Your task to perform on an android device: toggle priority inbox in the gmail app Image 0: 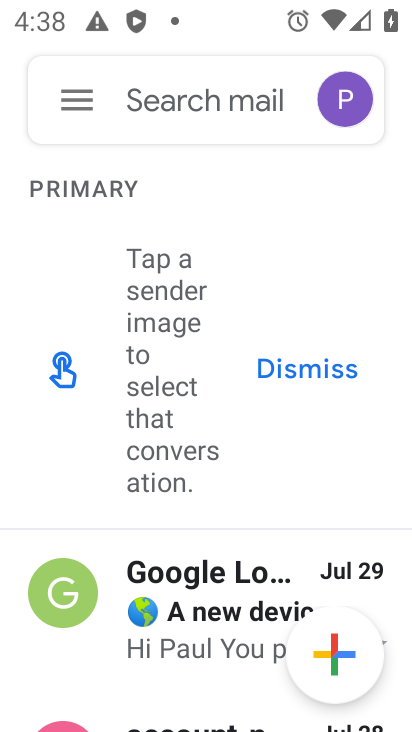
Step 0: press home button
Your task to perform on an android device: toggle priority inbox in the gmail app Image 1: 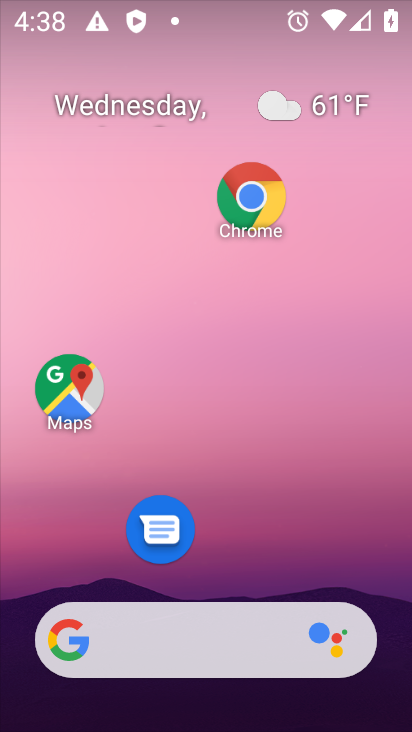
Step 1: click (252, 201)
Your task to perform on an android device: toggle priority inbox in the gmail app Image 2: 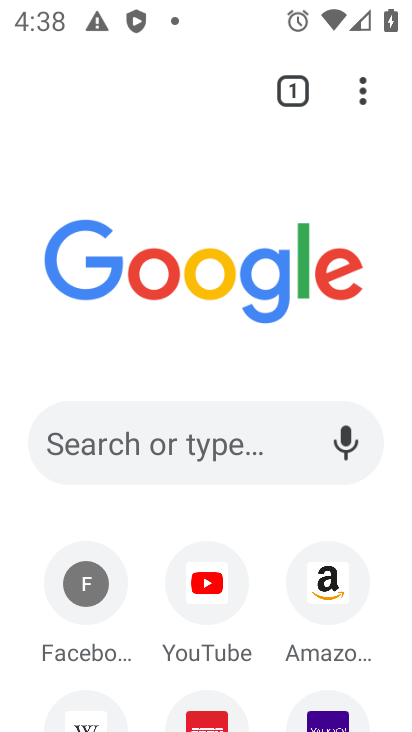
Step 2: click (301, 600)
Your task to perform on an android device: toggle priority inbox in the gmail app Image 3: 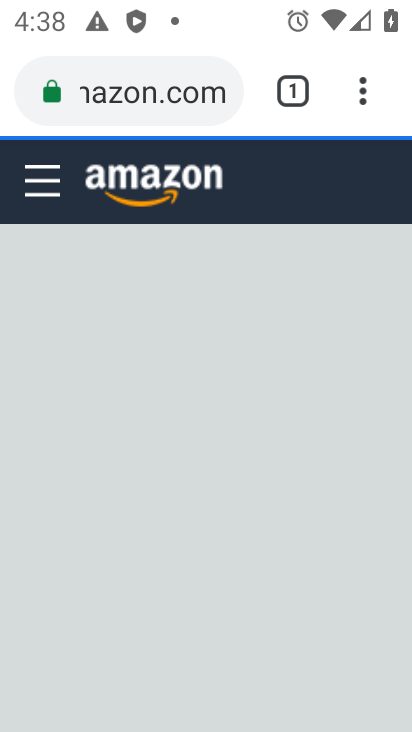
Step 3: press home button
Your task to perform on an android device: toggle priority inbox in the gmail app Image 4: 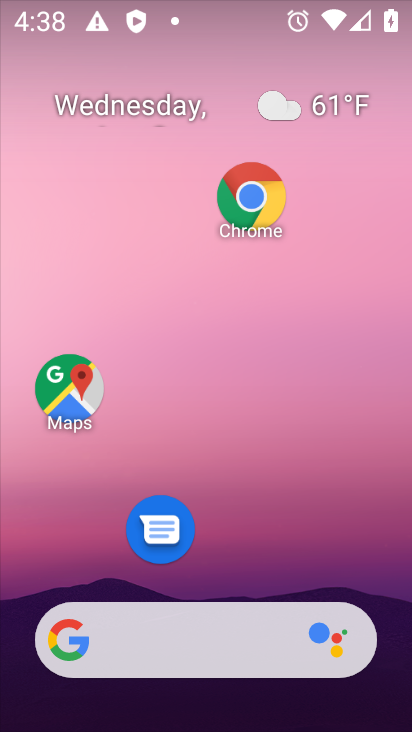
Step 4: drag from (208, 448) to (212, 61)
Your task to perform on an android device: toggle priority inbox in the gmail app Image 5: 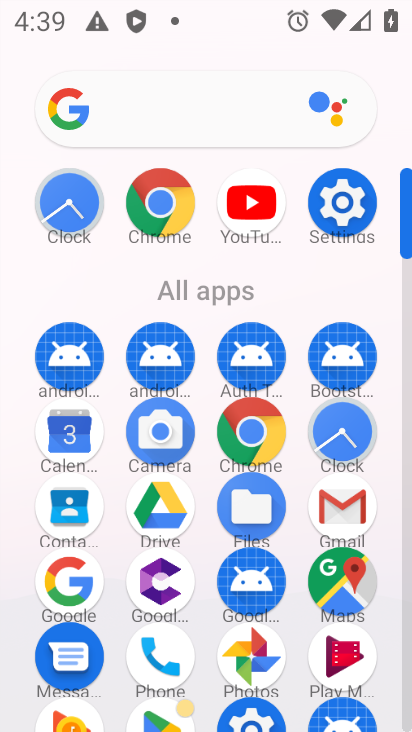
Step 5: click (349, 507)
Your task to perform on an android device: toggle priority inbox in the gmail app Image 6: 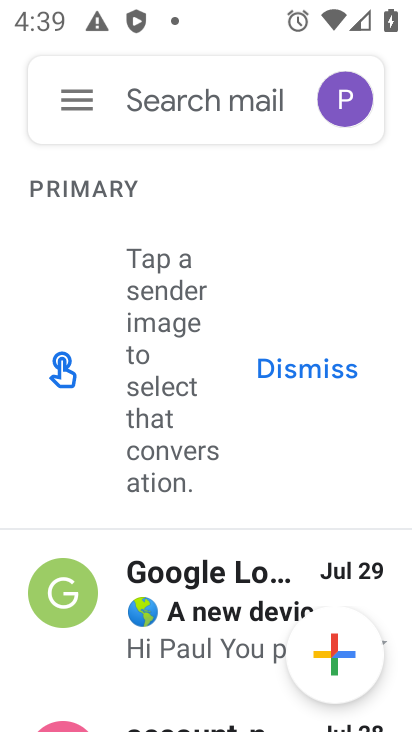
Step 6: click (51, 91)
Your task to perform on an android device: toggle priority inbox in the gmail app Image 7: 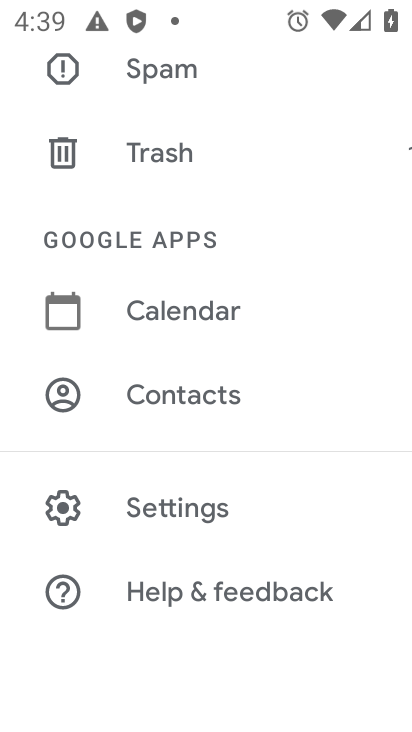
Step 7: click (195, 531)
Your task to perform on an android device: toggle priority inbox in the gmail app Image 8: 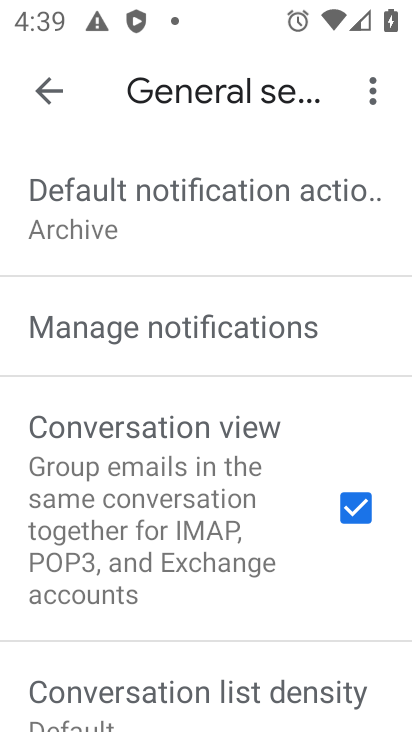
Step 8: click (50, 95)
Your task to perform on an android device: toggle priority inbox in the gmail app Image 9: 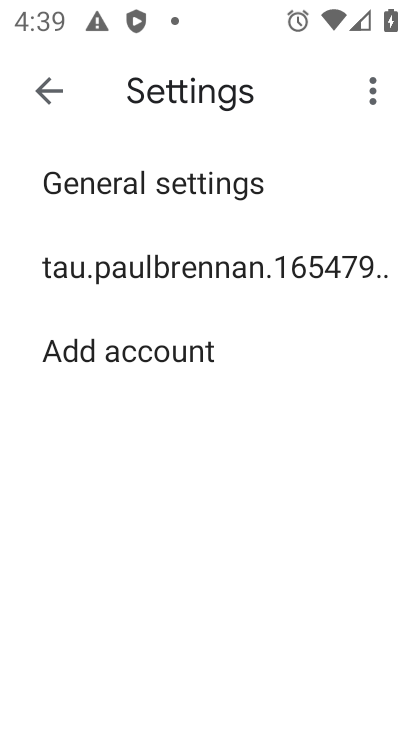
Step 9: click (198, 251)
Your task to perform on an android device: toggle priority inbox in the gmail app Image 10: 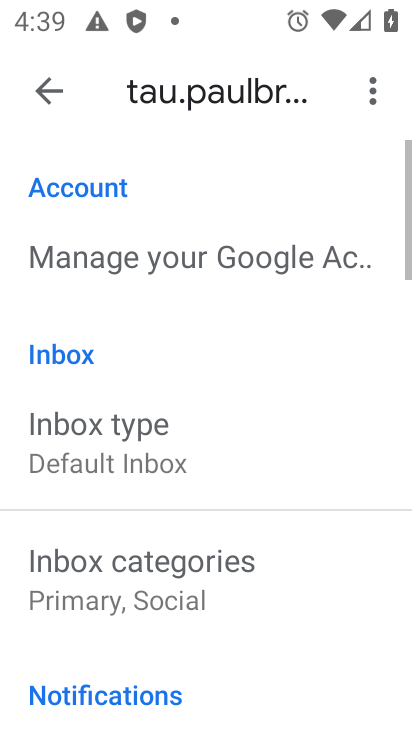
Step 10: click (161, 456)
Your task to perform on an android device: toggle priority inbox in the gmail app Image 11: 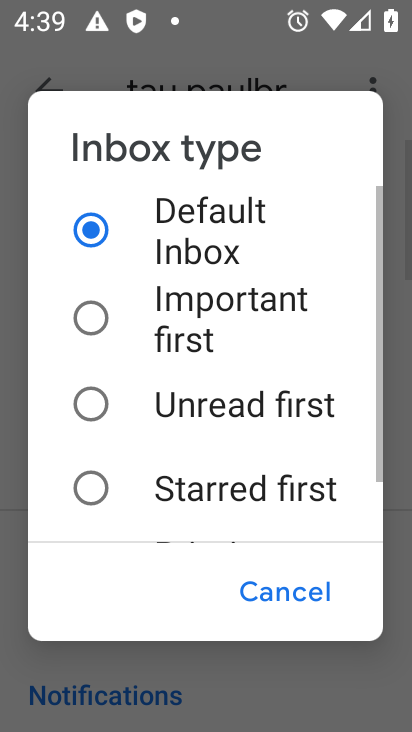
Step 11: drag from (205, 509) to (204, 124)
Your task to perform on an android device: toggle priority inbox in the gmail app Image 12: 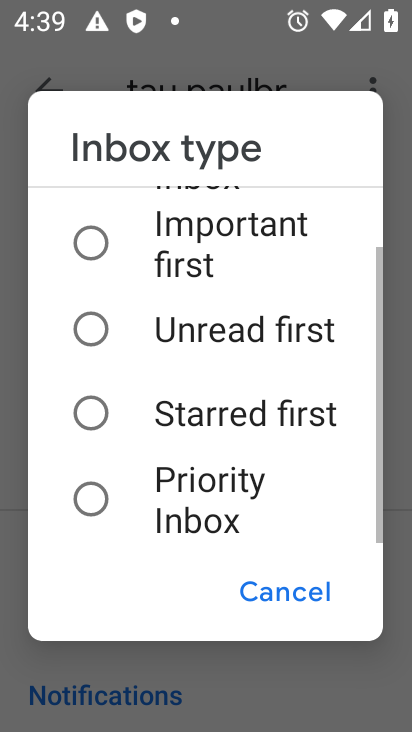
Step 12: click (113, 513)
Your task to perform on an android device: toggle priority inbox in the gmail app Image 13: 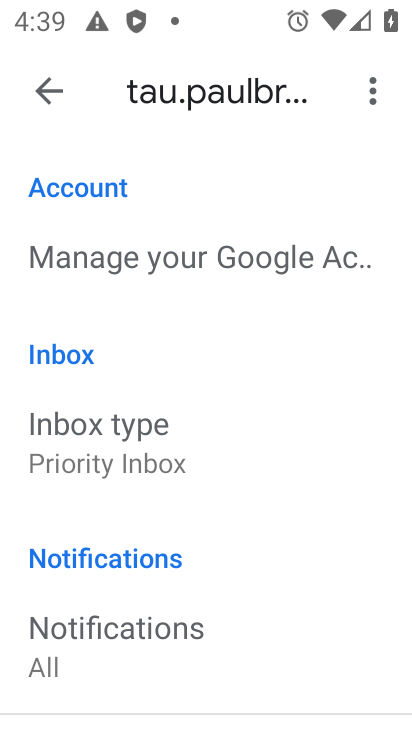
Step 13: task complete